Your task to perform on an android device: find photos in the google photos app Image 0: 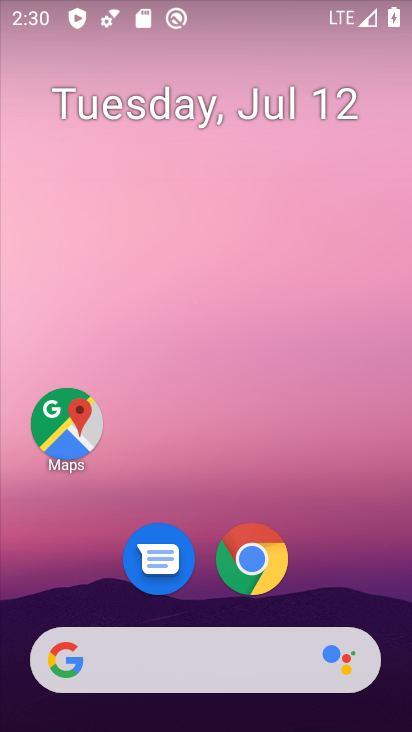
Step 0: drag from (378, 595) to (365, 254)
Your task to perform on an android device: find photos in the google photos app Image 1: 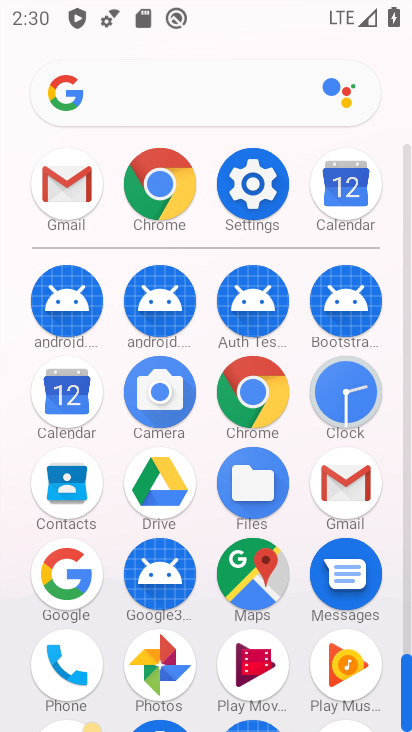
Step 1: click (171, 660)
Your task to perform on an android device: find photos in the google photos app Image 2: 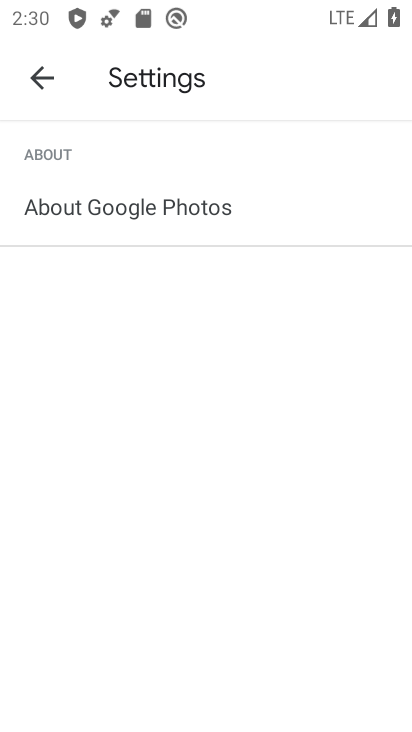
Step 2: press back button
Your task to perform on an android device: find photos in the google photos app Image 3: 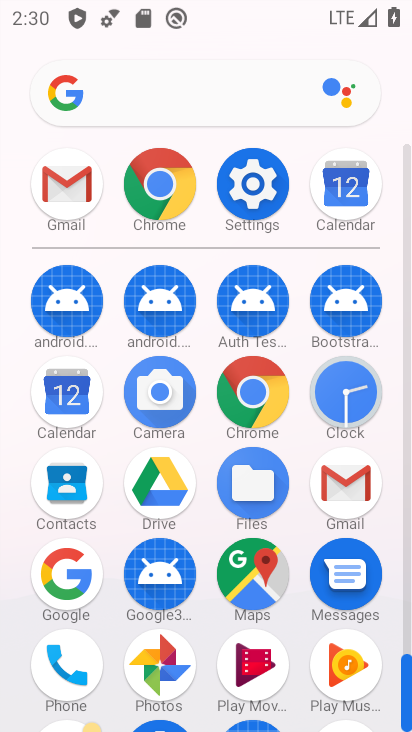
Step 3: click (151, 676)
Your task to perform on an android device: find photos in the google photos app Image 4: 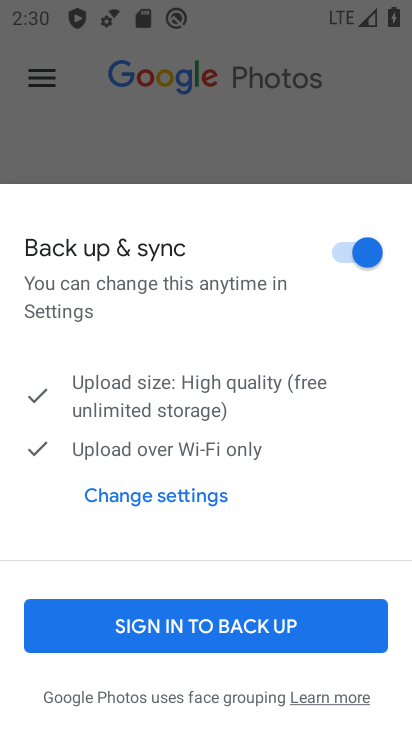
Step 4: click (327, 642)
Your task to perform on an android device: find photos in the google photos app Image 5: 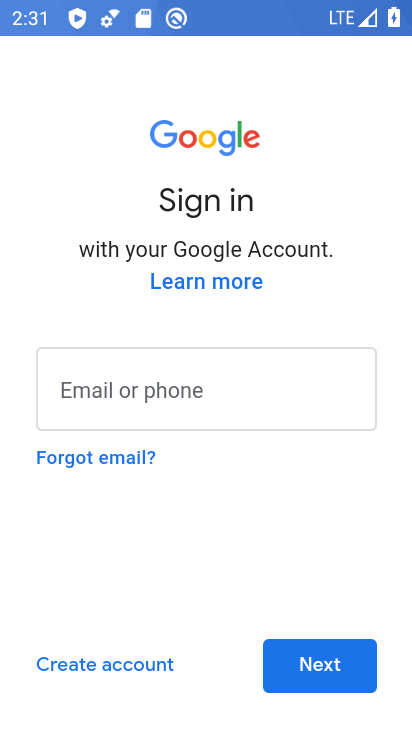
Step 5: task complete